Your task to perform on an android device: Search for "logitech g933" on costco.com, select the first entry, and add it to the cart. Image 0: 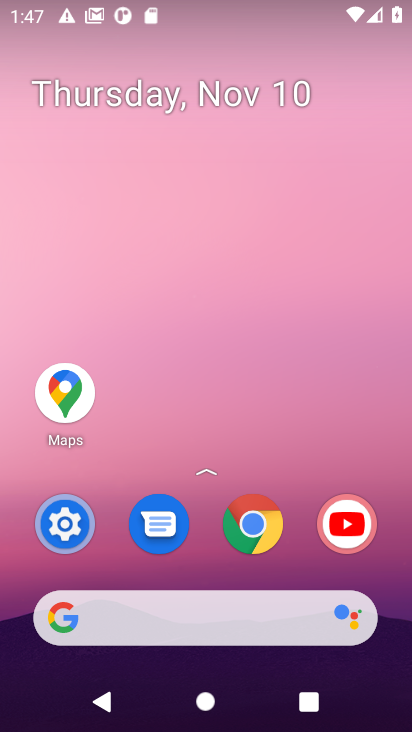
Step 0: click (264, 522)
Your task to perform on an android device: Search for "logitech g933" on costco.com, select the first entry, and add it to the cart. Image 1: 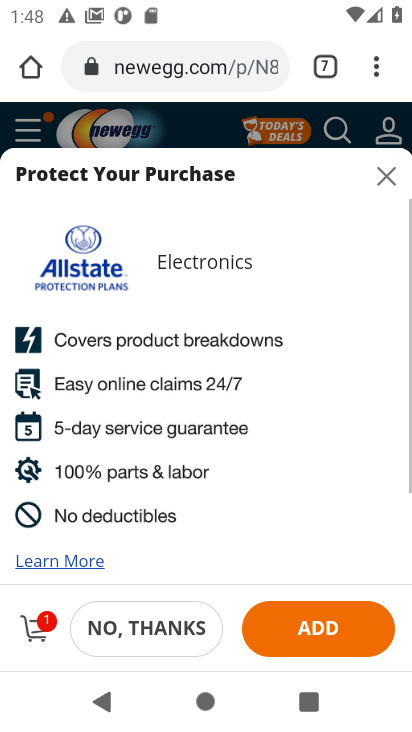
Step 1: click (335, 70)
Your task to perform on an android device: Search for "logitech g933" on costco.com, select the first entry, and add it to the cart. Image 2: 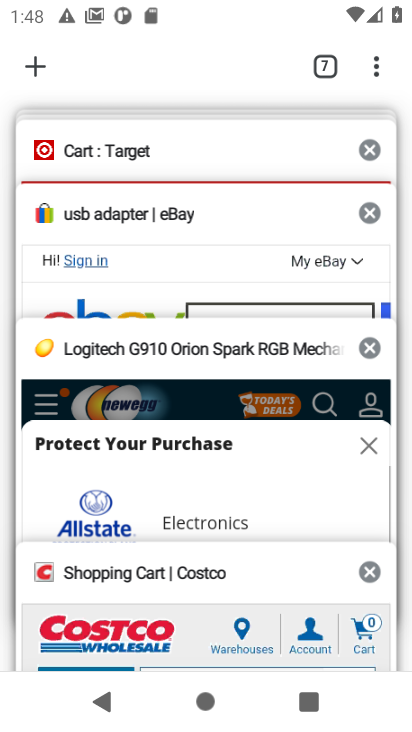
Step 2: click (146, 633)
Your task to perform on an android device: Search for "logitech g933" on costco.com, select the first entry, and add it to the cart. Image 3: 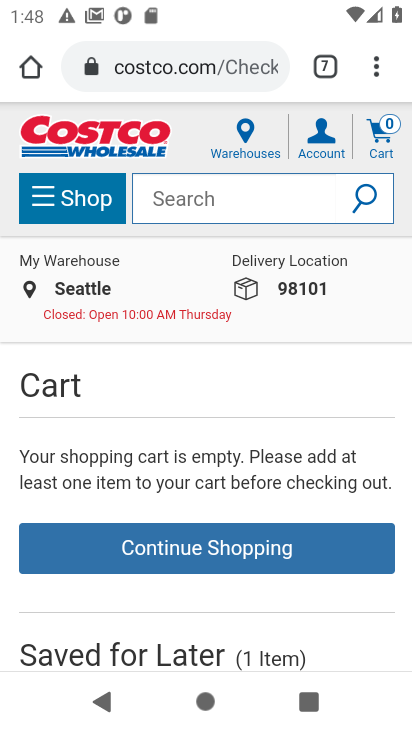
Step 3: click (258, 199)
Your task to perform on an android device: Search for "logitech g933" on costco.com, select the first entry, and add it to the cart. Image 4: 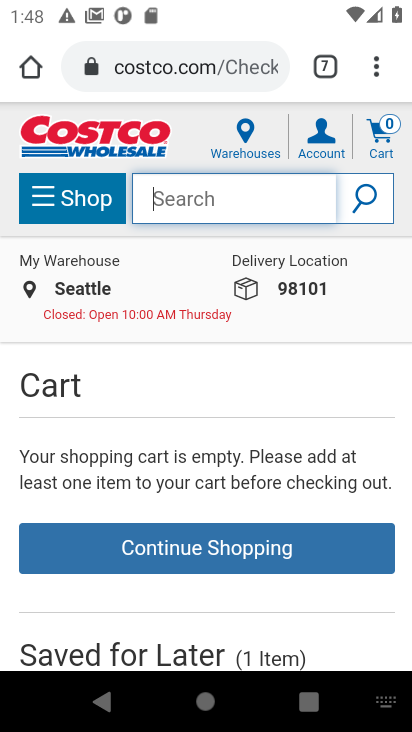
Step 4: type "logitech g933"
Your task to perform on an android device: Search for "logitech g933" on costco.com, select the first entry, and add it to the cart. Image 5: 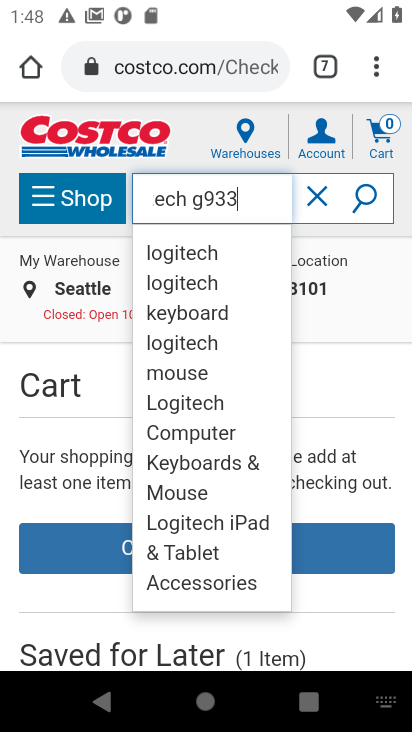
Step 5: click (372, 197)
Your task to perform on an android device: Search for "logitech g933" on costco.com, select the first entry, and add it to the cart. Image 6: 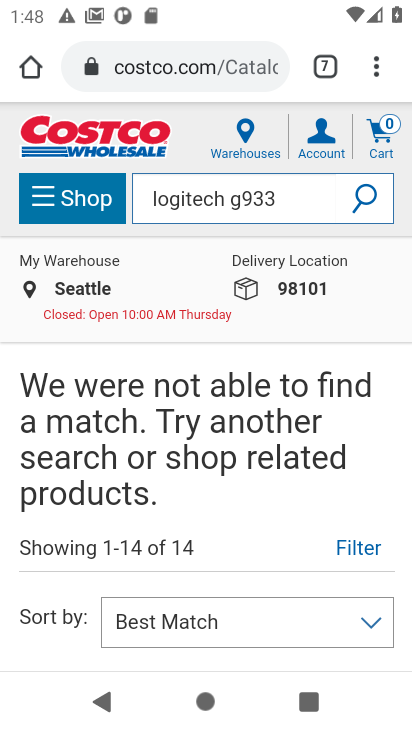
Step 6: task complete